Your task to perform on an android device: turn vacation reply on in the gmail app Image 0: 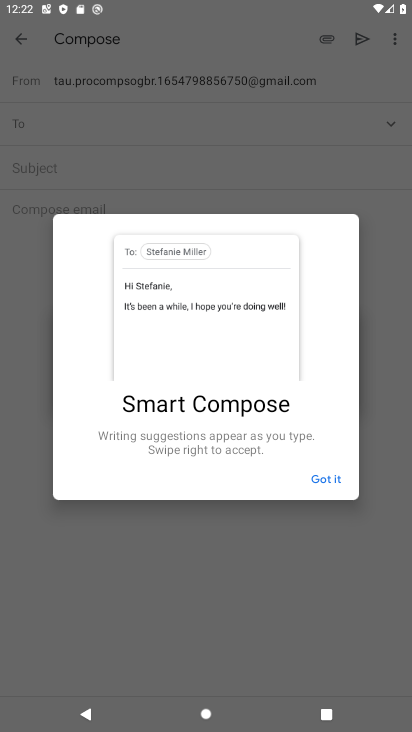
Step 0: click (310, 476)
Your task to perform on an android device: turn vacation reply on in the gmail app Image 1: 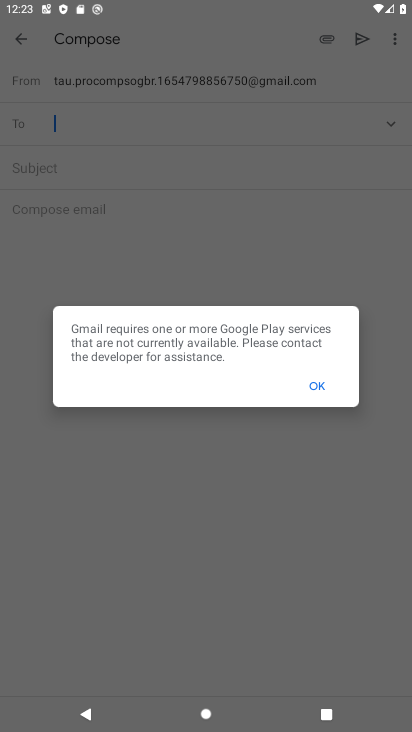
Step 1: click (314, 381)
Your task to perform on an android device: turn vacation reply on in the gmail app Image 2: 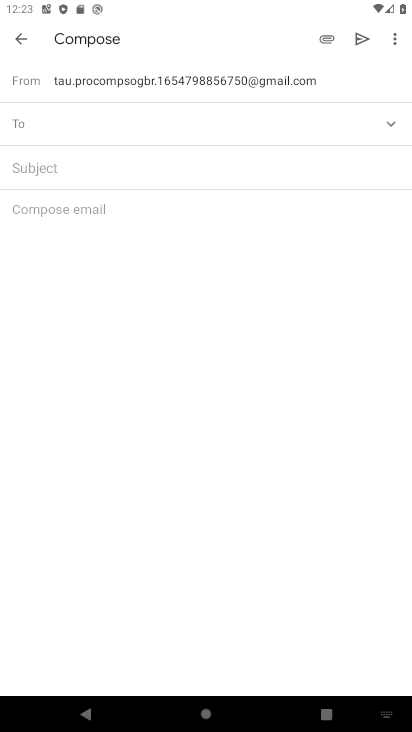
Step 2: click (14, 33)
Your task to perform on an android device: turn vacation reply on in the gmail app Image 3: 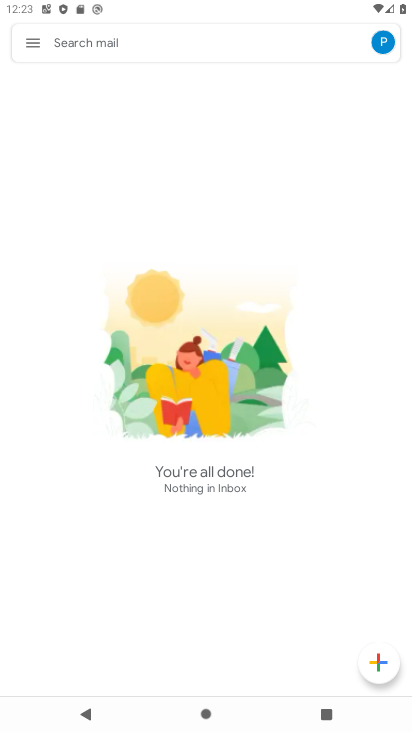
Step 3: click (41, 52)
Your task to perform on an android device: turn vacation reply on in the gmail app Image 4: 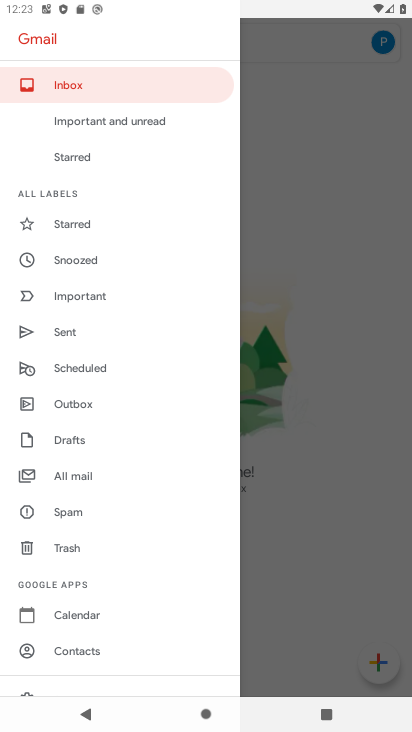
Step 4: drag from (84, 652) to (131, 81)
Your task to perform on an android device: turn vacation reply on in the gmail app Image 5: 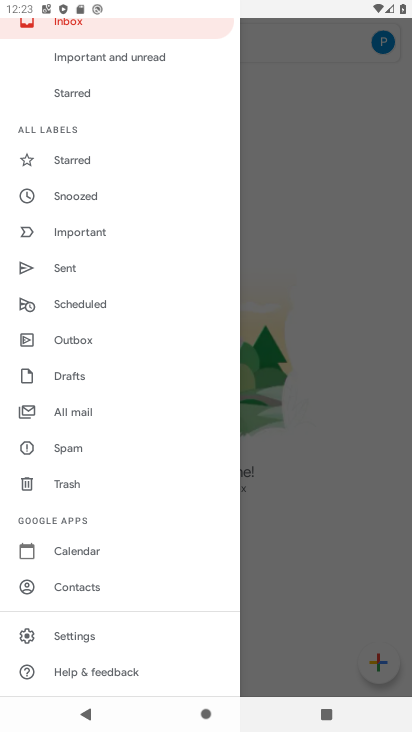
Step 5: click (89, 638)
Your task to perform on an android device: turn vacation reply on in the gmail app Image 6: 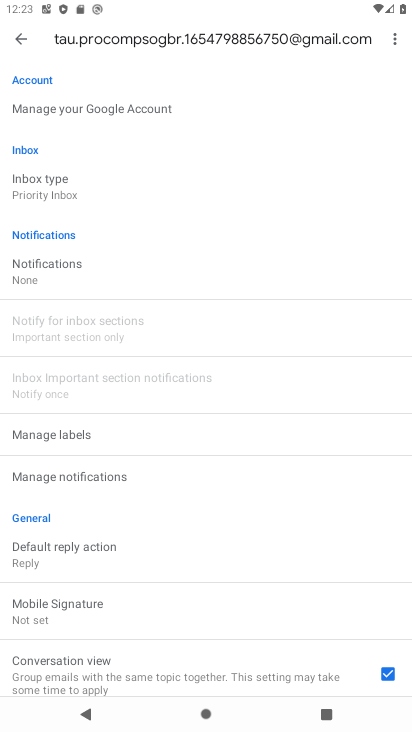
Step 6: drag from (140, 588) to (278, 42)
Your task to perform on an android device: turn vacation reply on in the gmail app Image 7: 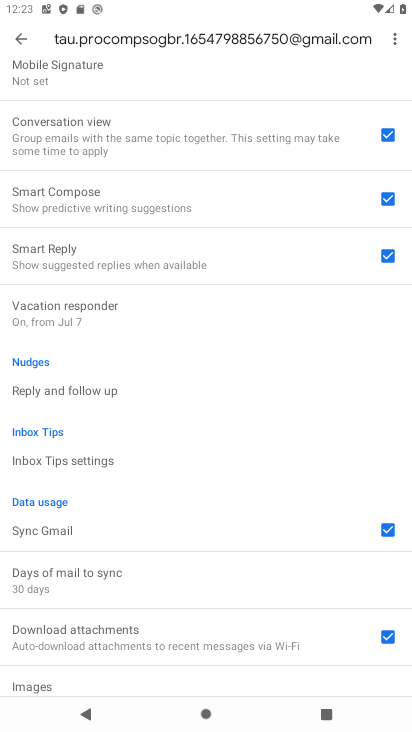
Step 7: click (161, 307)
Your task to perform on an android device: turn vacation reply on in the gmail app Image 8: 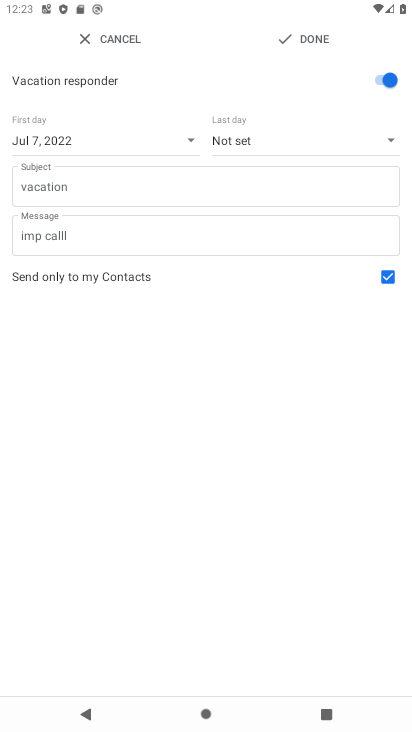
Step 8: click (284, 29)
Your task to perform on an android device: turn vacation reply on in the gmail app Image 9: 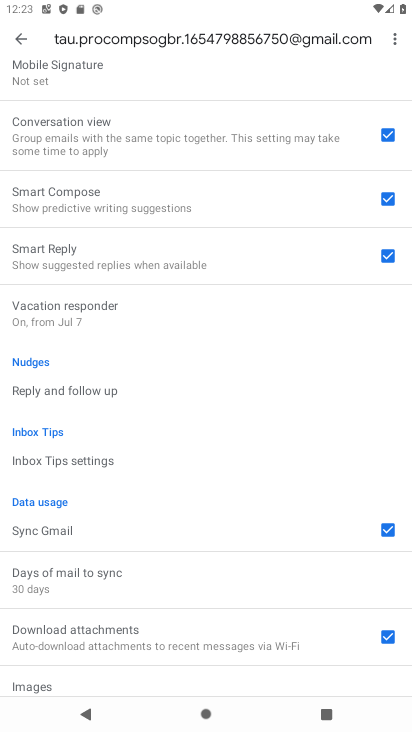
Step 9: task complete